Your task to perform on an android device: Go to calendar. Show me events next week Image 0: 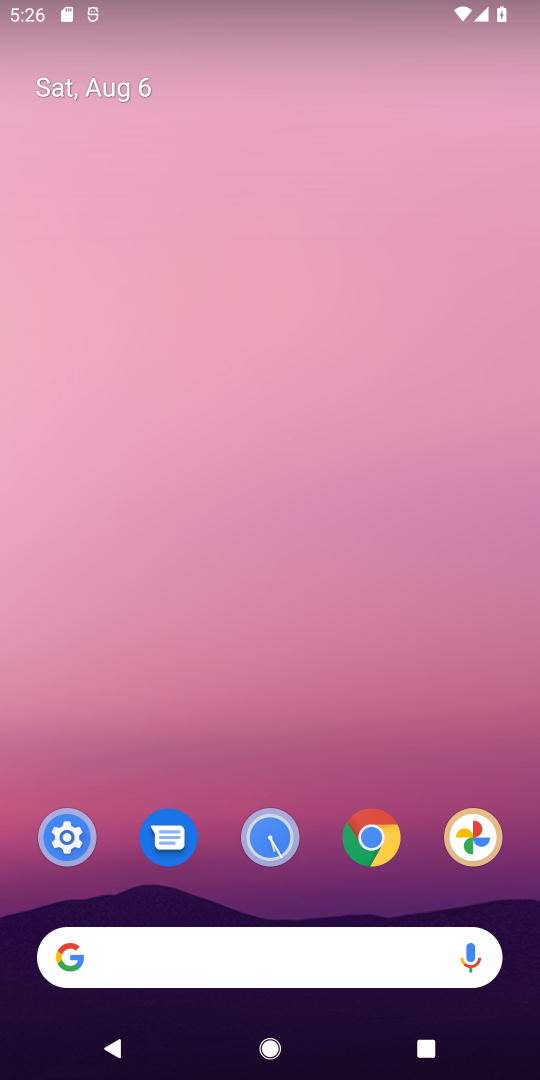
Step 0: drag from (351, 514) to (294, 151)
Your task to perform on an android device: Go to calendar. Show me events next week Image 1: 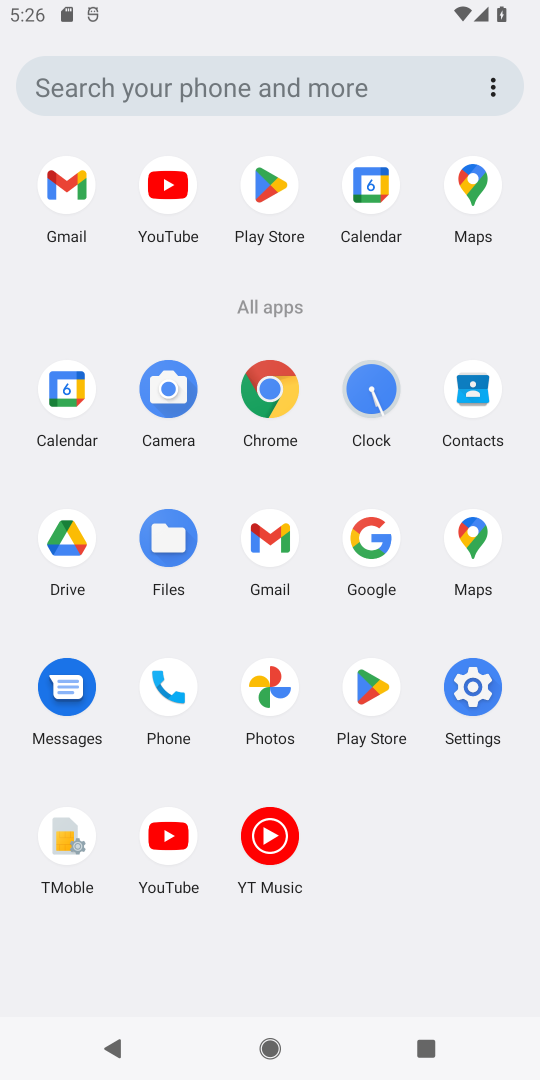
Step 1: click (85, 382)
Your task to perform on an android device: Go to calendar. Show me events next week Image 2: 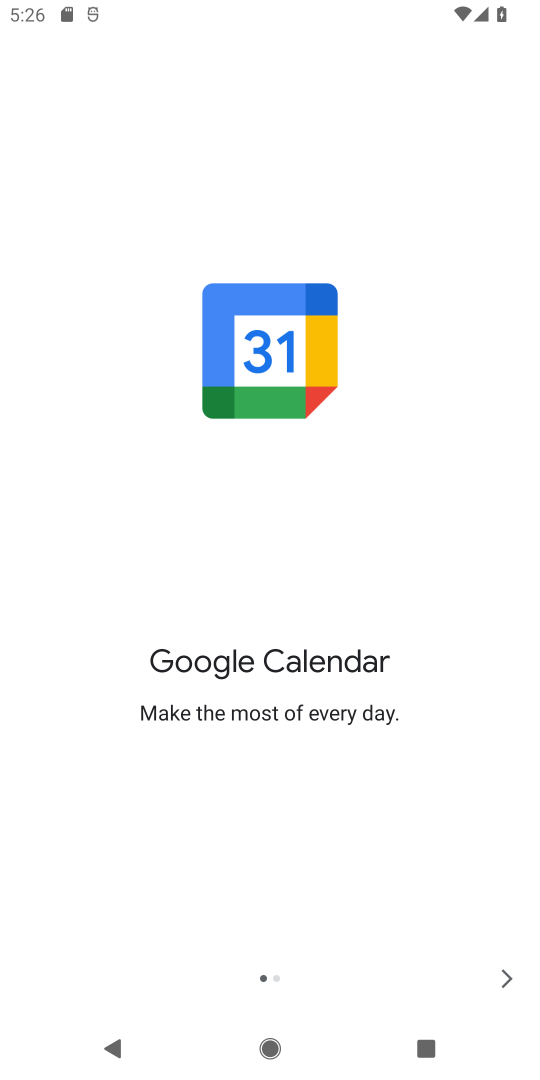
Step 2: click (511, 983)
Your task to perform on an android device: Go to calendar. Show me events next week Image 3: 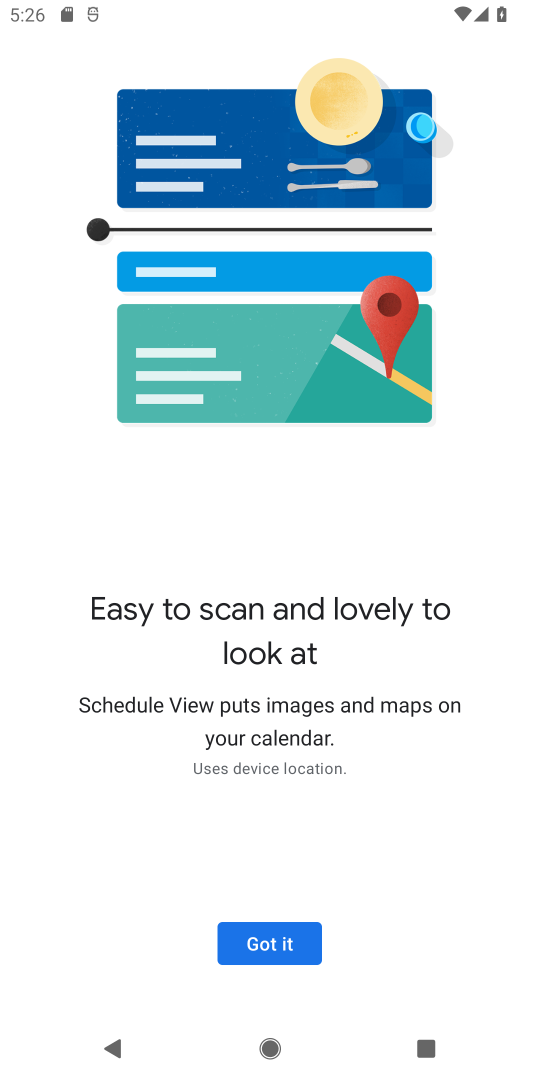
Step 3: click (280, 932)
Your task to perform on an android device: Go to calendar. Show me events next week Image 4: 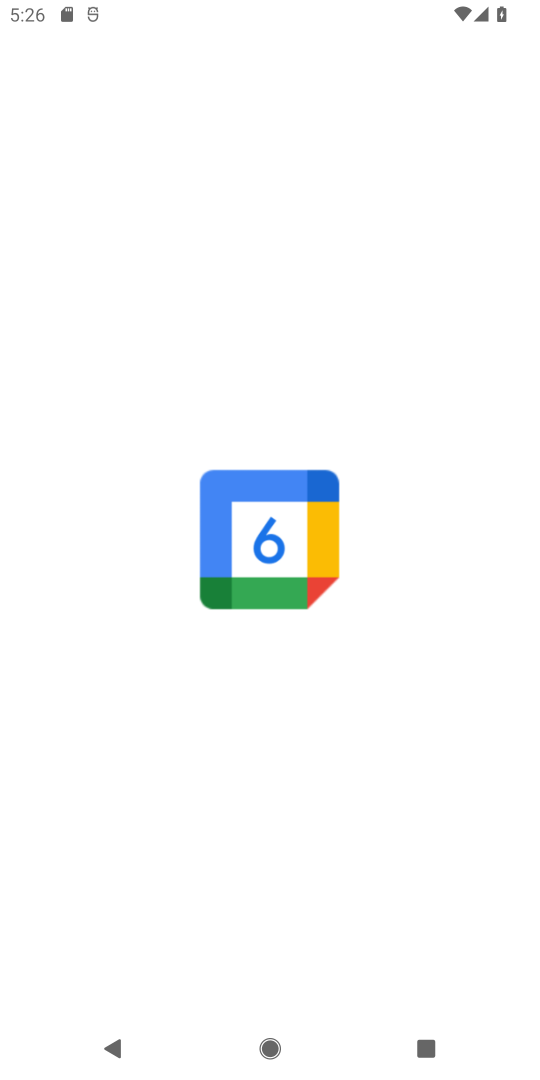
Step 4: task complete